Your task to perform on an android device: check data usage Image 0: 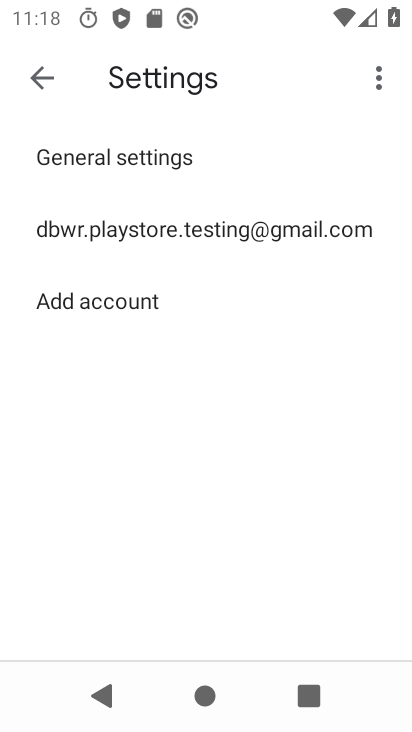
Step 0: press home button
Your task to perform on an android device: check data usage Image 1: 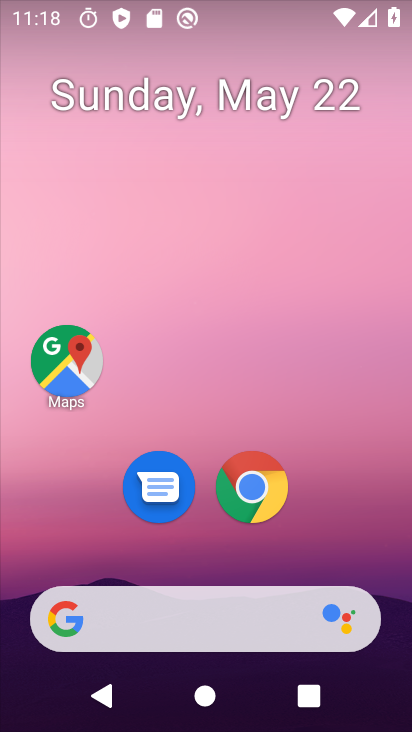
Step 1: drag from (365, 538) to (364, 155)
Your task to perform on an android device: check data usage Image 2: 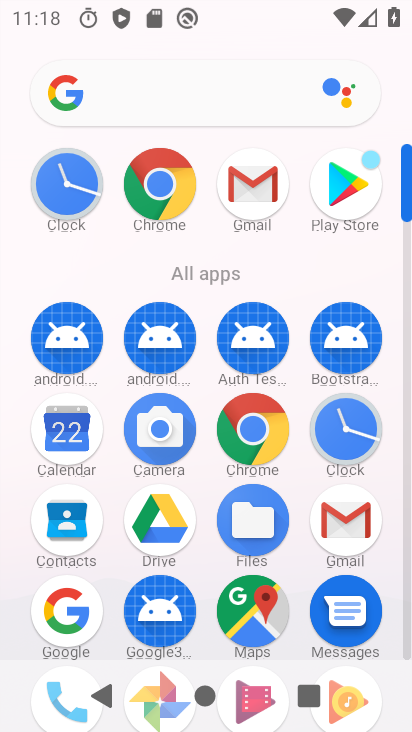
Step 2: drag from (227, 534) to (286, 201)
Your task to perform on an android device: check data usage Image 3: 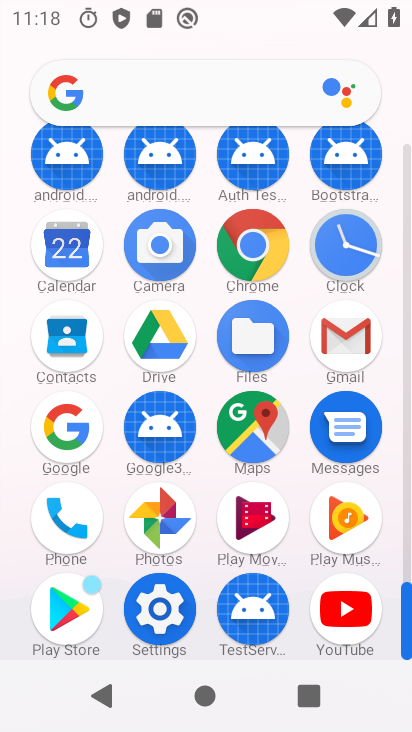
Step 3: click (163, 605)
Your task to perform on an android device: check data usage Image 4: 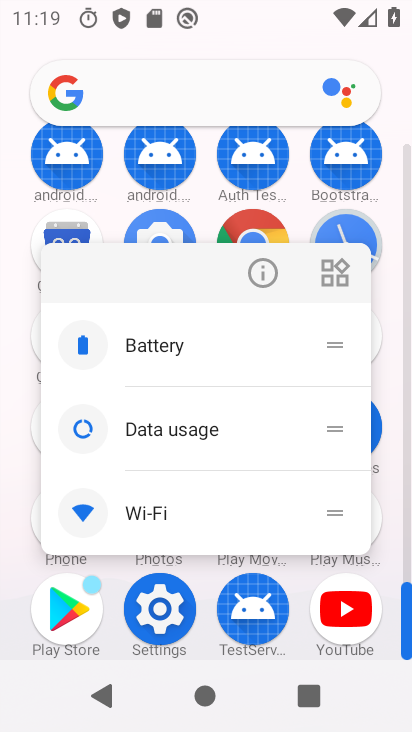
Step 4: click (150, 610)
Your task to perform on an android device: check data usage Image 5: 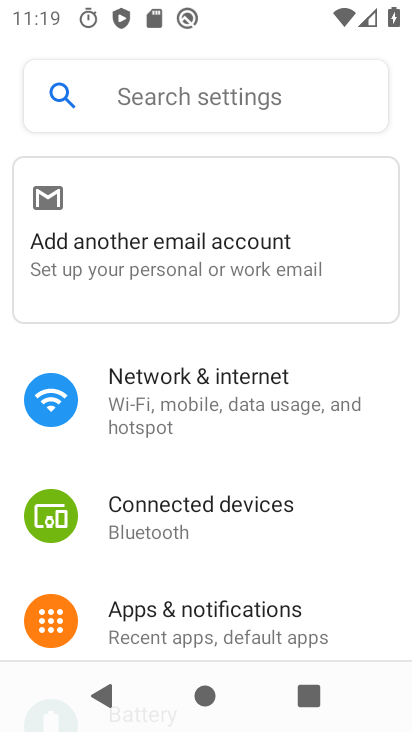
Step 5: drag from (263, 590) to (281, 303)
Your task to perform on an android device: check data usage Image 6: 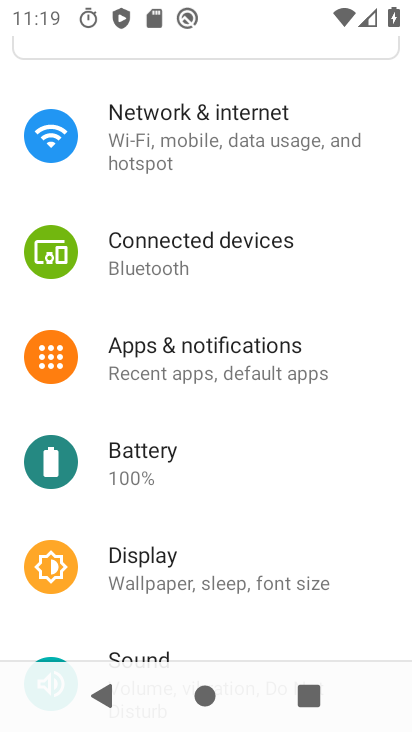
Step 6: drag from (251, 542) to (256, 438)
Your task to perform on an android device: check data usage Image 7: 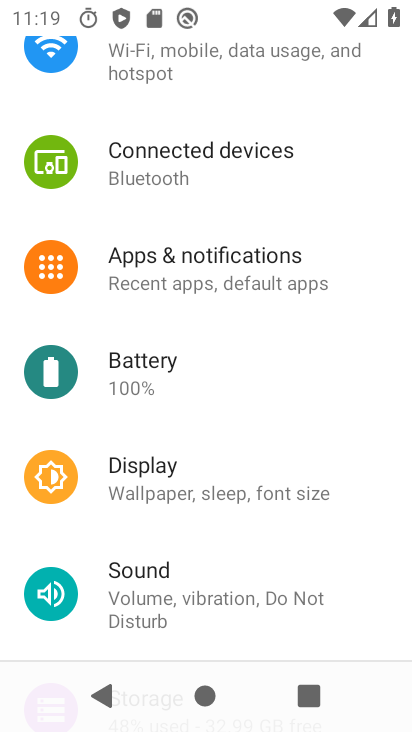
Step 7: click (231, 75)
Your task to perform on an android device: check data usage Image 8: 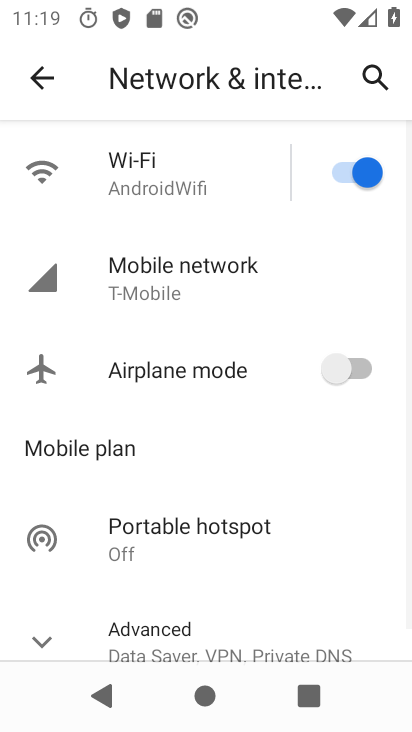
Step 8: drag from (193, 584) to (197, 250)
Your task to perform on an android device: check data usage Image 9: 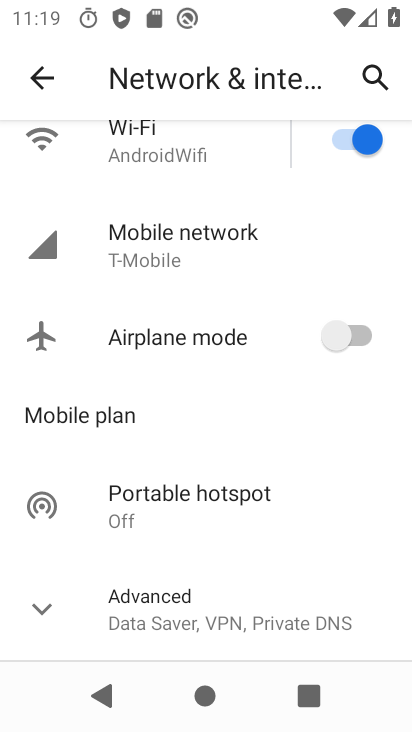
Step 9: click (176, 246)
Your task to perform on an android device: check data usage Image 10: 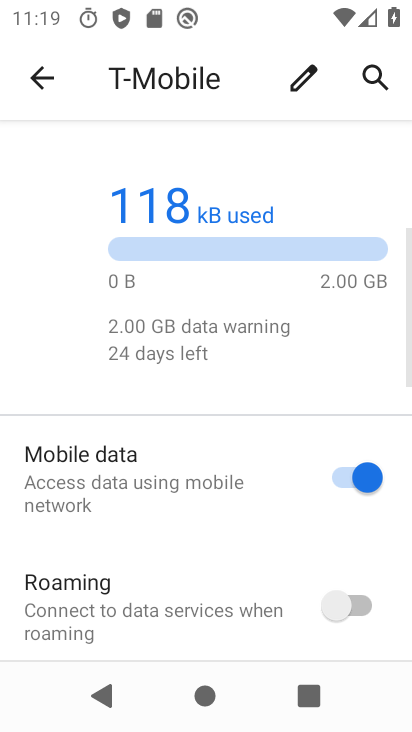
Step 10: task complete